Your task to perform on an android device: Open Amazon Image 0: 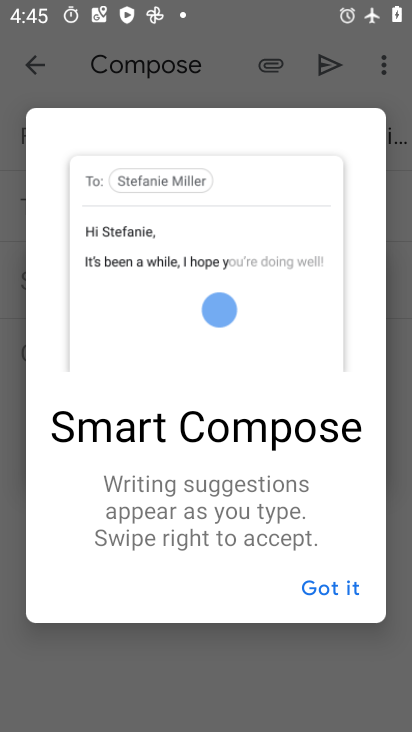
Step 0: press home button
Your task to perform on an android device: Open Amazon Image 1: 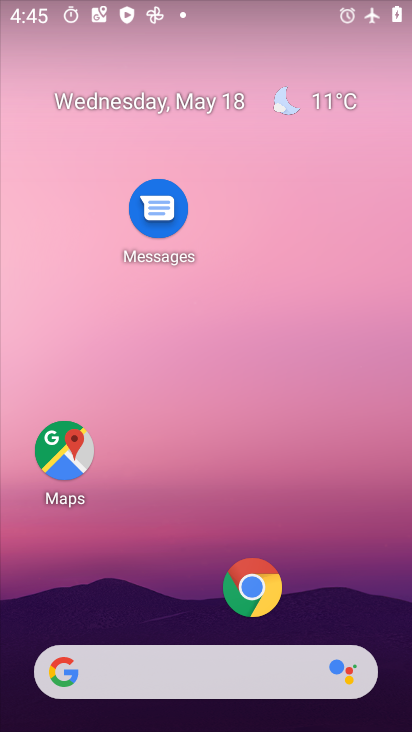
Step 1: click (266, 581)
Your task to perform on an android device: Open Amazon Image 2: 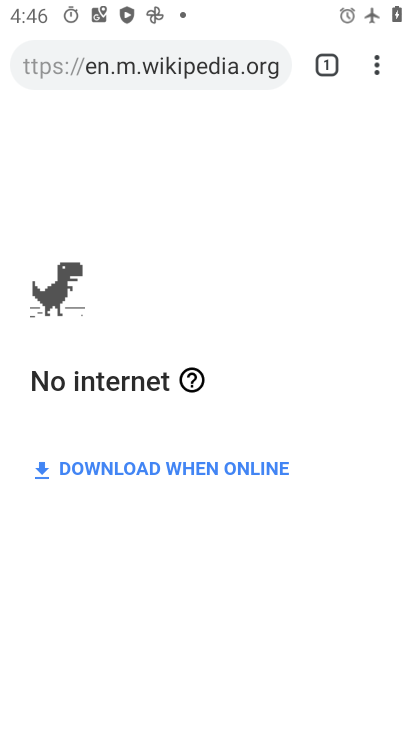
Step 2: task complete